Your task to perform on an android device: Go to Maps Image 0: 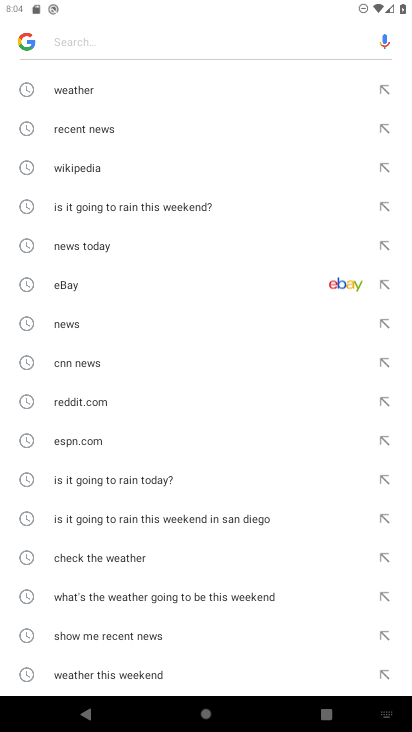
Step 0: press home button
Your task to perform on an android device: Go to Maps Image 1: 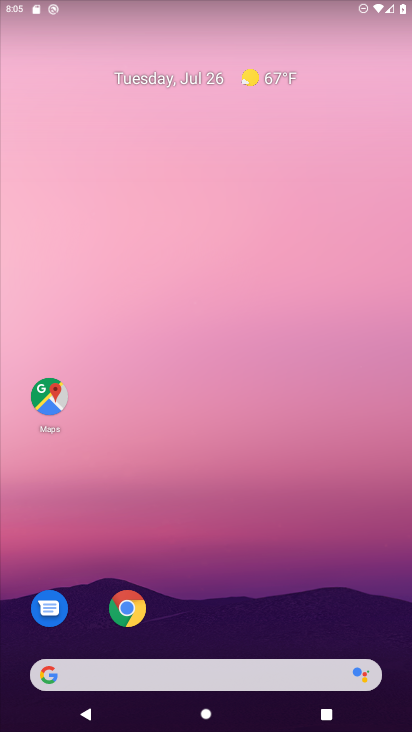
Step 1: click (57, 378)
Your task to perform on an android device: Go to Maps Image 2: 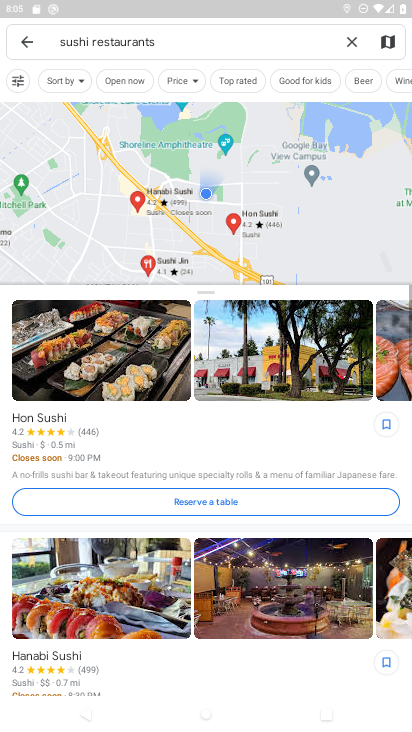
Step 2: click (30, 32)
Your task to perform on an android device: Go to Maps Image 3: 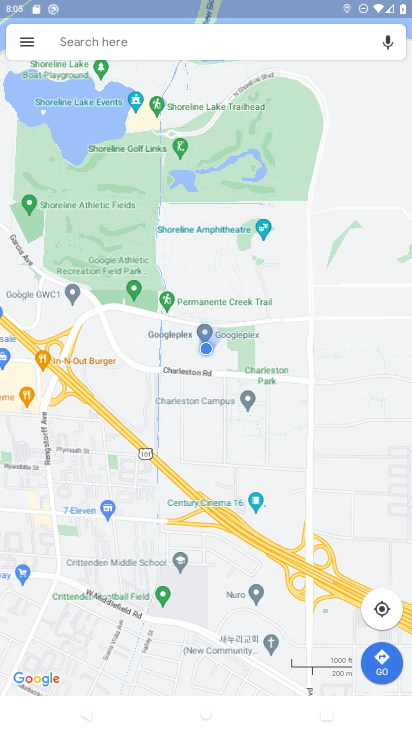
Step 3: task complete